Your task to perform on an android device: toggle priority inbox in the gmail app Image 0: 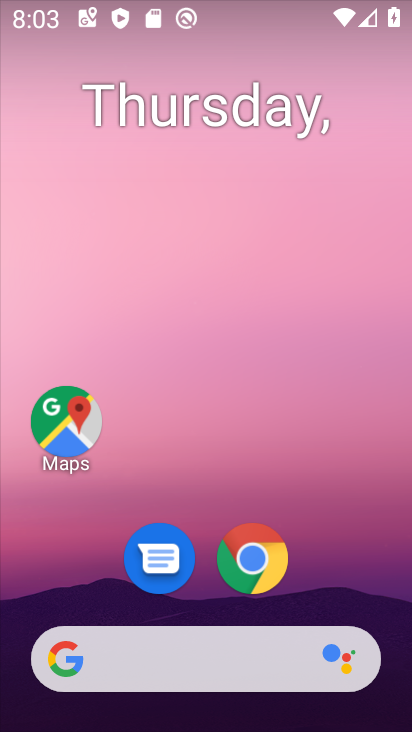
Step 0: drag from (264, 628) to (279, 94)
Your task to perform on an android device: toggle priority inbox in the gmail app Image 1: 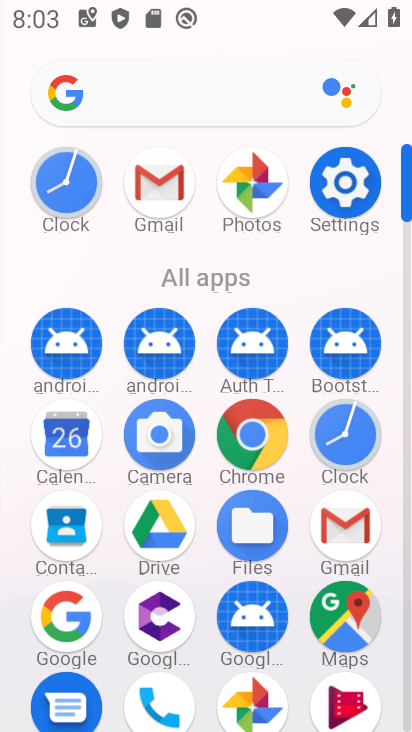
Step 1: click (172, 203)
Your task to perform on an android device: toggle priority inbox in the gmail app Image 2: 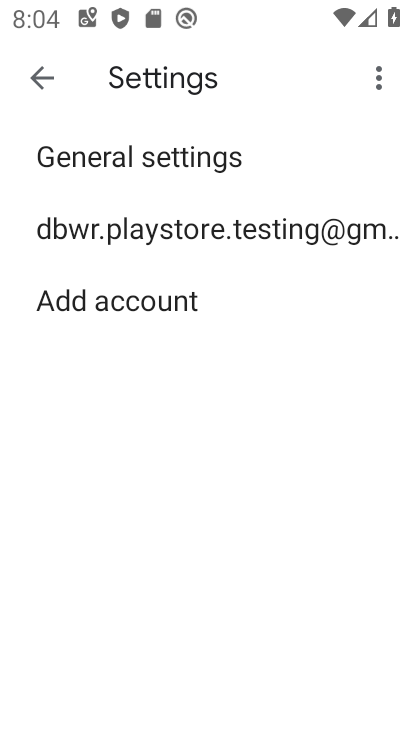
Step 2: click (251, 235)
Your task to perform on an android device: toggle priority inbox in the gmail app Image 3: 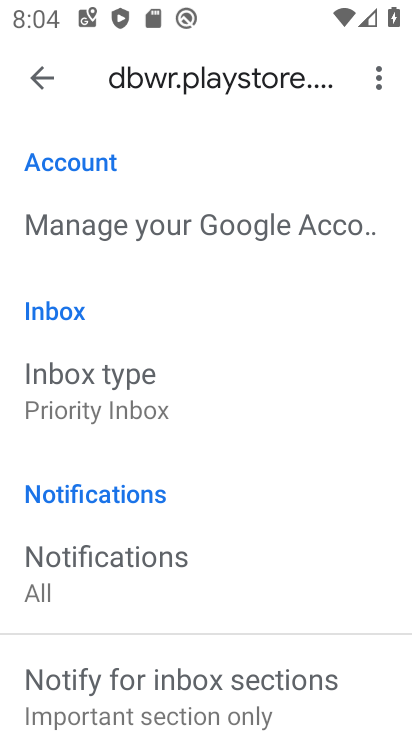
Step 3: click (101, 395)
Your task to perform on an android device: toggle priority inbox in the gmail app Image 4: 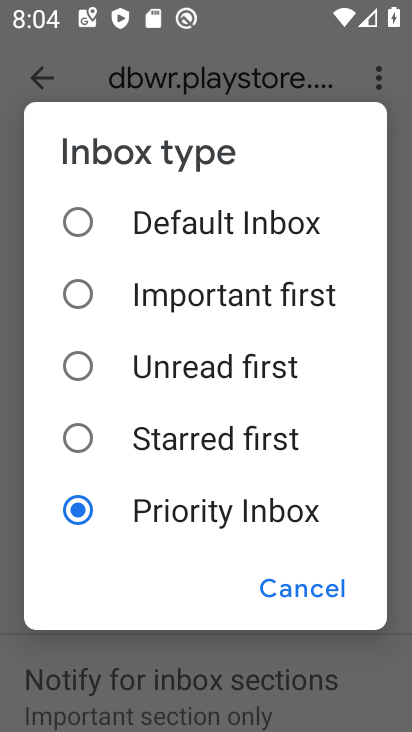
Step 4: click (168, 284)
Your task to perform on an android device: toggle priority inbox in the gmail app Image 5: 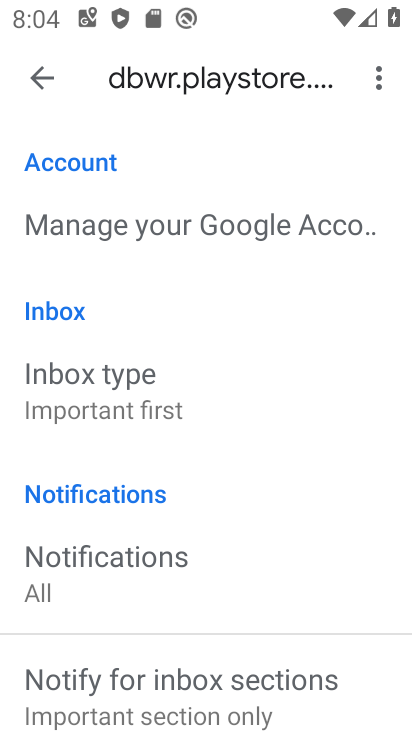
Step 5: task complete